Your task to perform on an android device: change alarm snooze length Image 0: 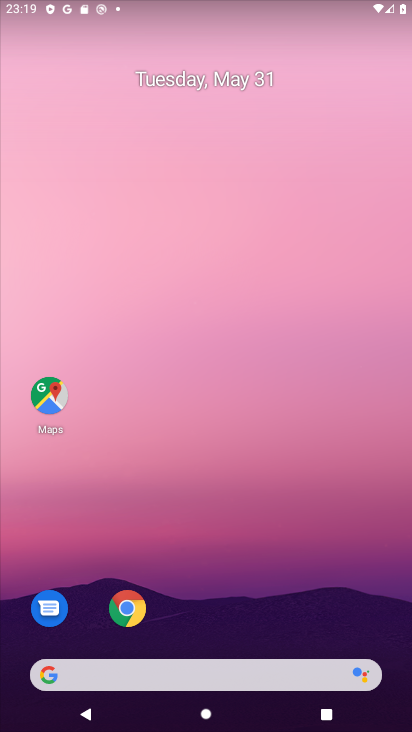
Step 0: drag from (188, 586) to (121, 5)
Your task to perform on an android device: change alarm snooze length Image 1: 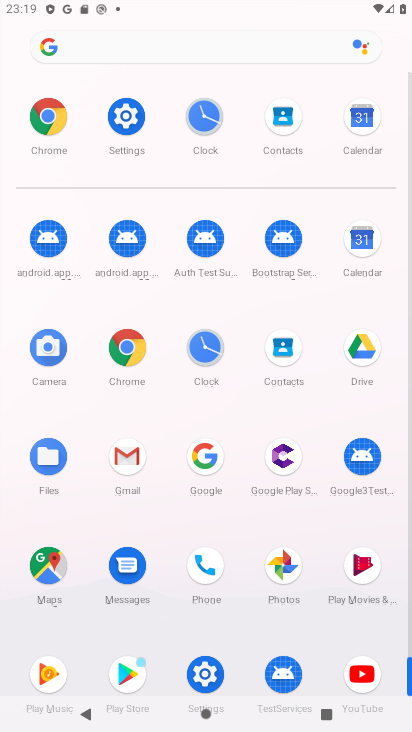
Step 1: click (186, 120)
Your task to perform on an android device: change alarm snooze length Image 2: 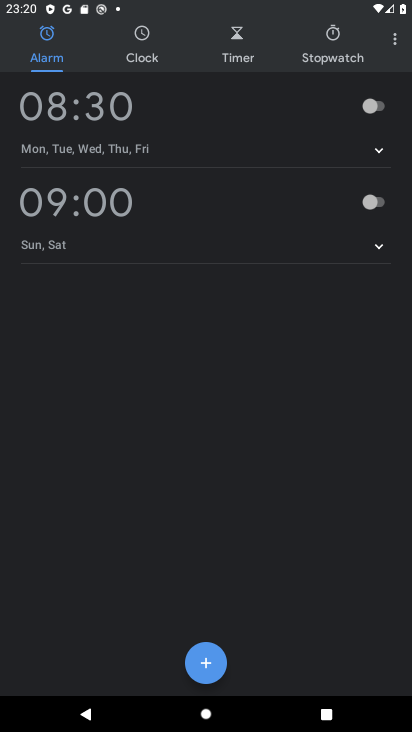
Step 2: click (384, 41)
Your task to perform on an android device: change alarm snooze length Image 3: 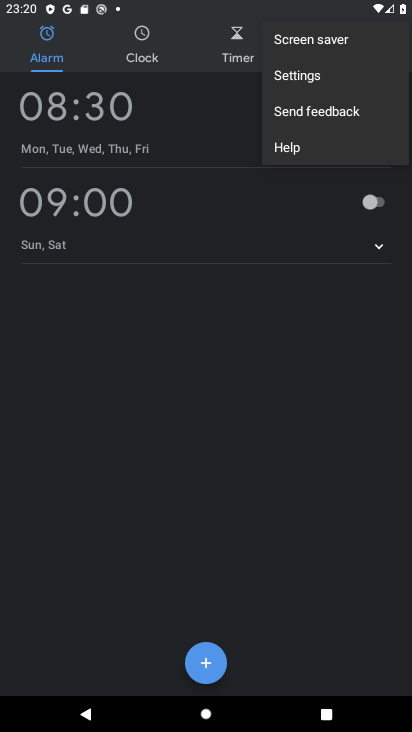
Step 3: click (321, 75)
Your task to perform on an android device: change alarm snooze length Image 4: 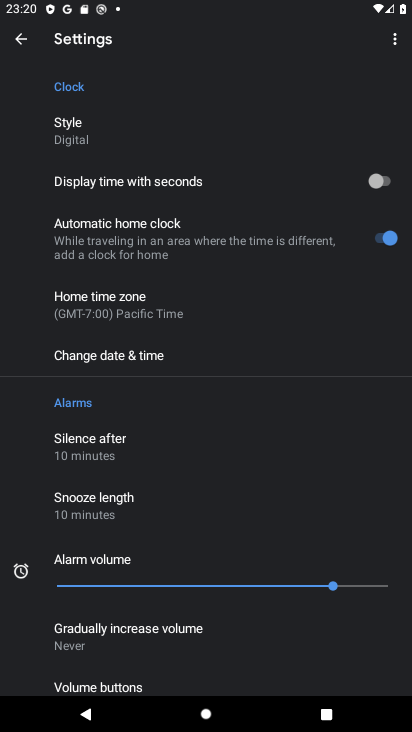
Step 4: click (18, 39)
Your task to perform on an android device: change alarm snooze length Image 5: 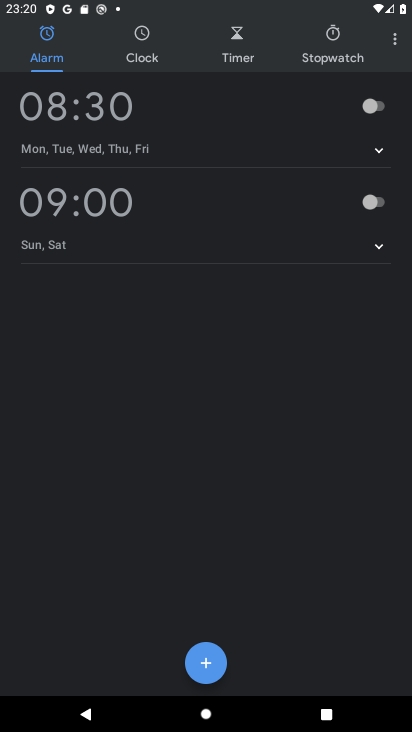
Step 5: task complete